Your task to perform on an android device: What's the weather going to be this weekend? Image 0: 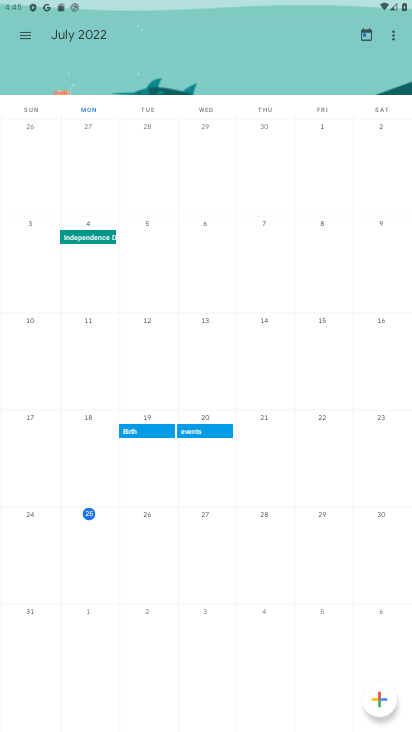
Step 0: press home button
Your task to perform on an android device: What's the weather going to be this weekend? Image 1: 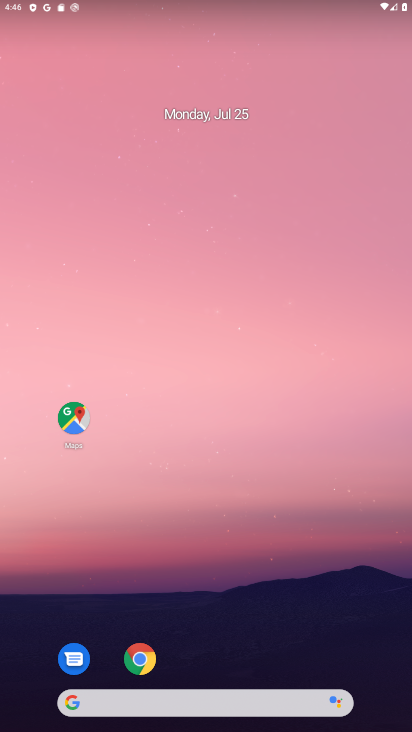
Step 1: click (138, 693)
Your task to perform on an android device: What's the weather going to be this weekend? Image 2: 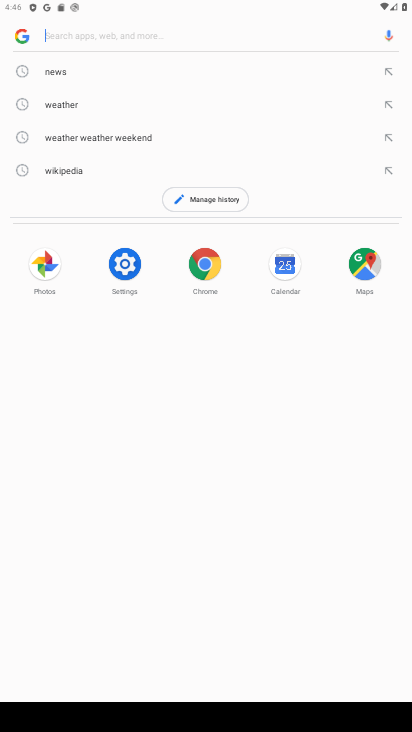
Step 2: click (69, 111)
Your task to perform on an android device: What's the weather going to be this weekend? Image 3: 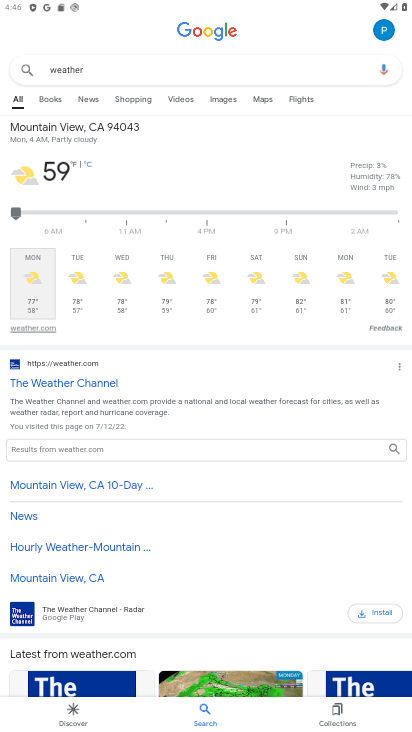
Step 3: click (37, 327)
Your task to perform on an android device: What's the weather going to be this weekend? Image 4: 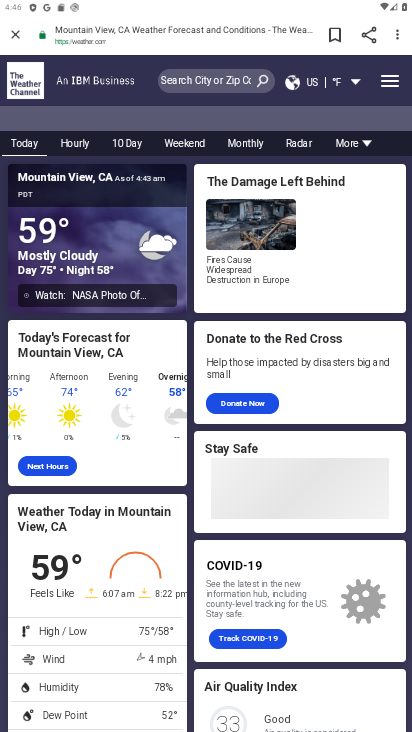
Step 4: click (180, 141)
Your task to perform on an android device: What's the weather going to be this weekend? Image 5: 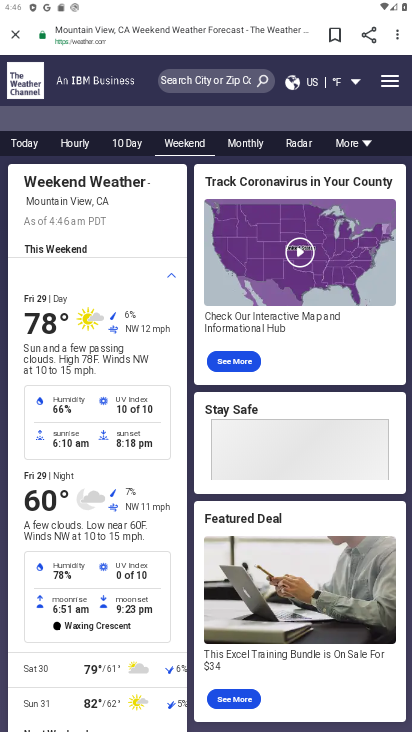
Step 5: task complete